Your task to perform on an android device: toggle data saver in the chrome app Image 0: 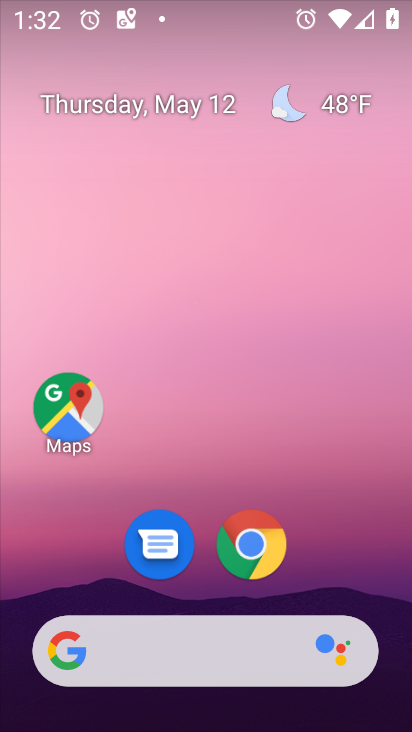
Step 0: drag from (293, 504) to (232, 8)
Your task to perform on an android device: toggle data saver in the chrome app Image 1: 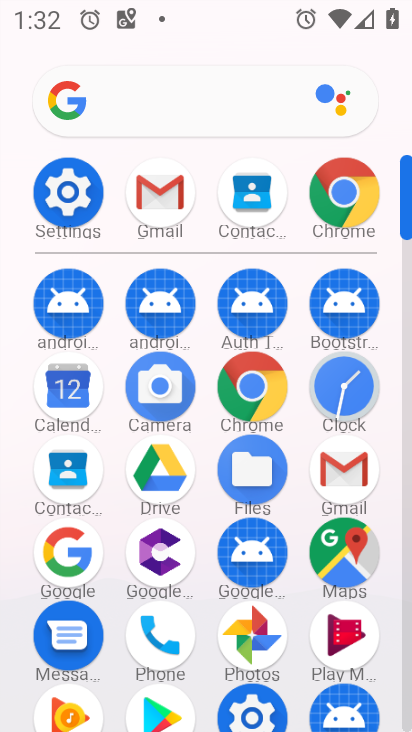
Step 1: drag from (27, 456) to (17, 177)
Your task to perform on an android device: toggle data saver in the chrome app Image 2: 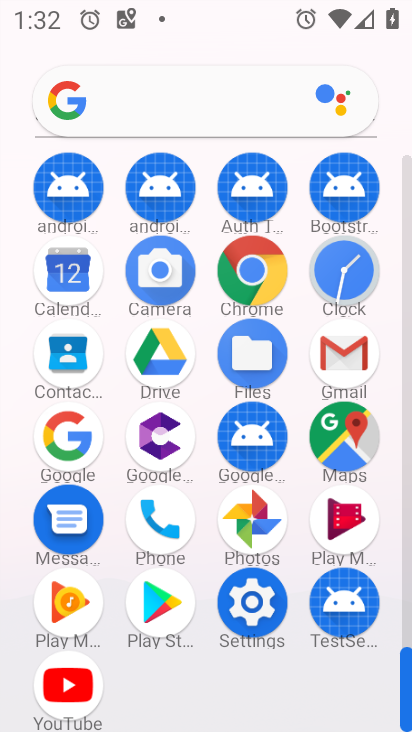
Step 2: click (251, 264)
Your task to perform on an android device: toggle data saver in the chrome app Image 3: 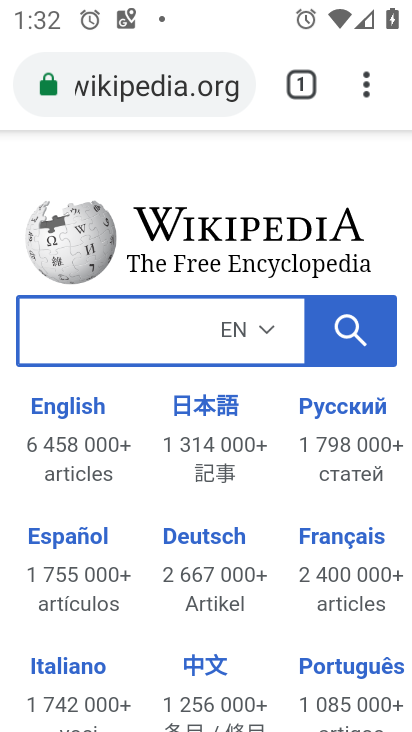
Step 3: drag from (371, 83) to (174, 595)
Your task to perform on an android device: toggle data saver in the chrome app Image 4: 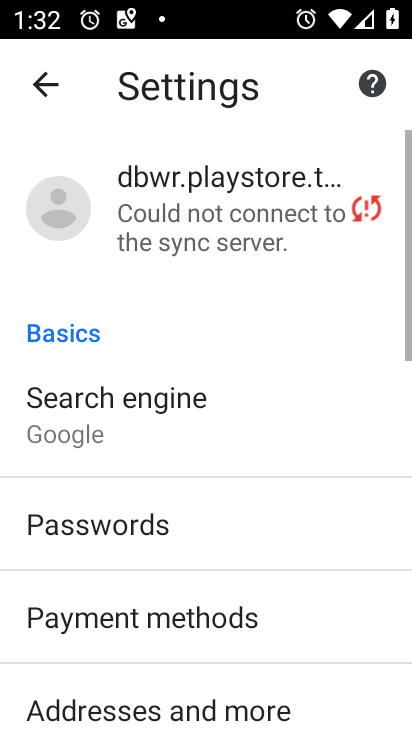
Step 4: drag from (223, 574) to (254, 182)
Your task to perform on an android device: toggle data saver in the chrome app Image 5: 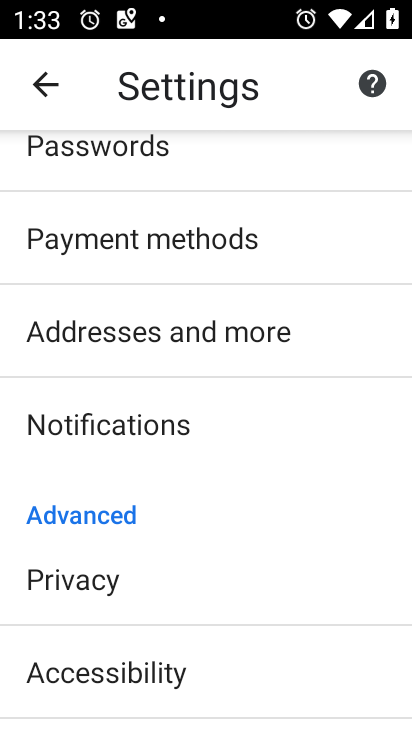
Step 5: drag from (190, 617) to (242, 215)
Your task to perform on an android device: toggle data saver in the chrome app Image 6: 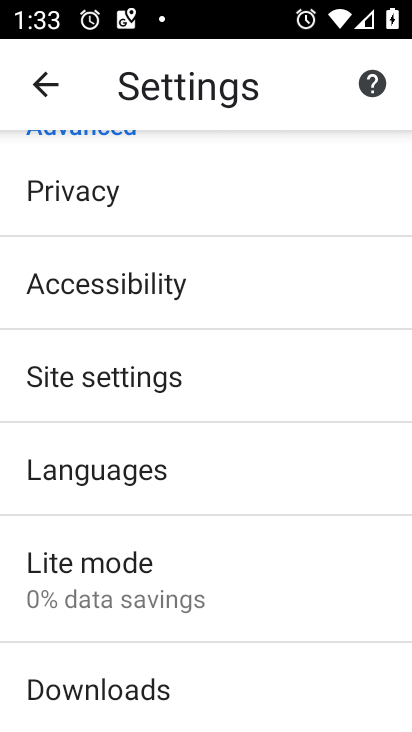
Step 6: click (177, 562)
Your task to perform on an android device: toggle data saver in the chrome app Image 7: 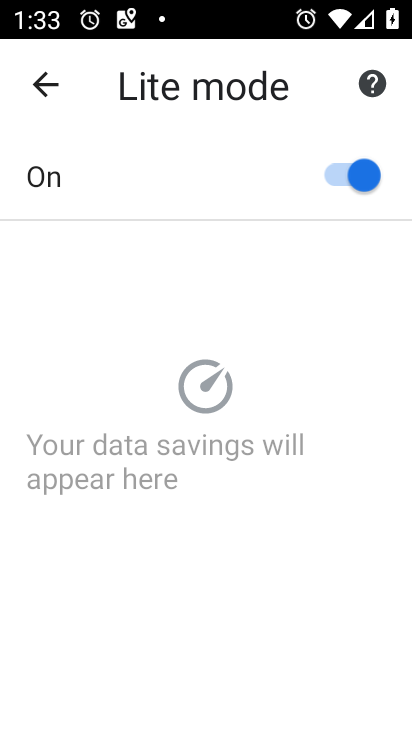
Step 7: click (346, 165)
Your task to perform on an android device: toggle data saver in the chrome app Image 8: 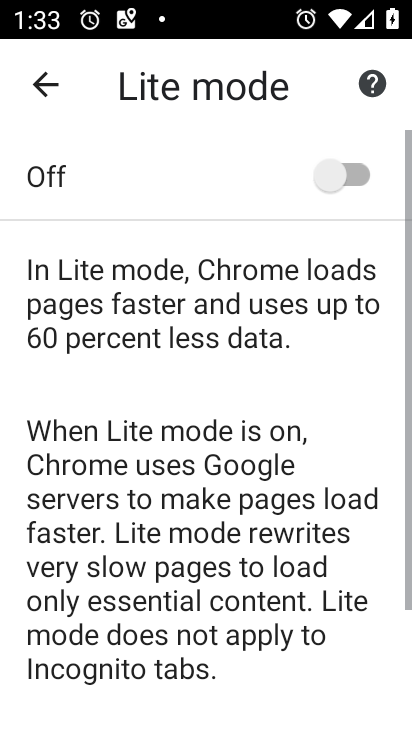
Step 8: task complete